Your task to perform on an android device: Do I have any events today? Image 0: 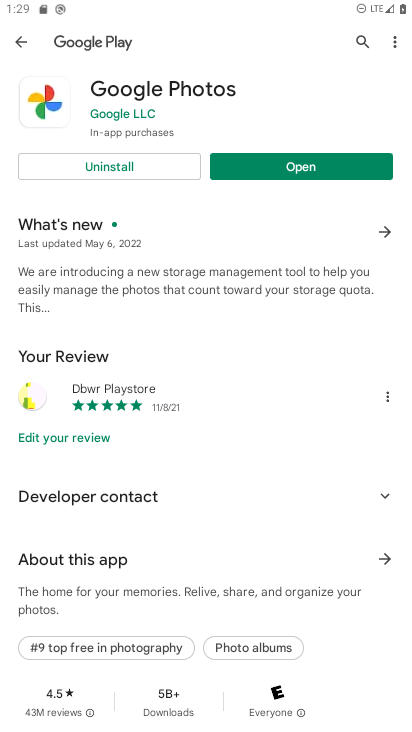
Step 0: drag from (202, 538) to (254, 183)
Your task to perform on an android device: Do I have any events today? Image 1: 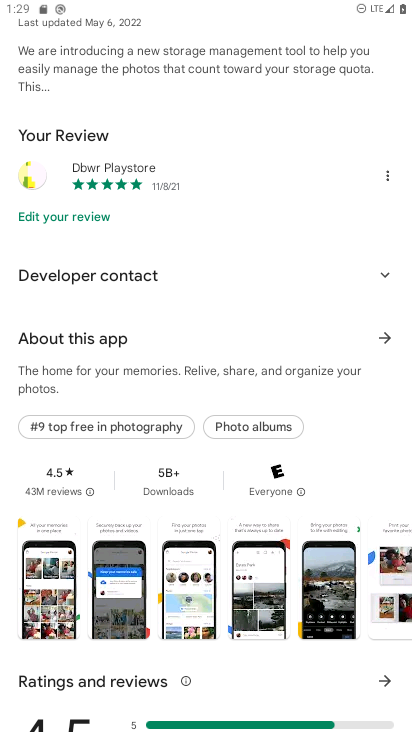
Step 1: press home button
Your task to perform on an android device: Do I have any events today? Image 2: 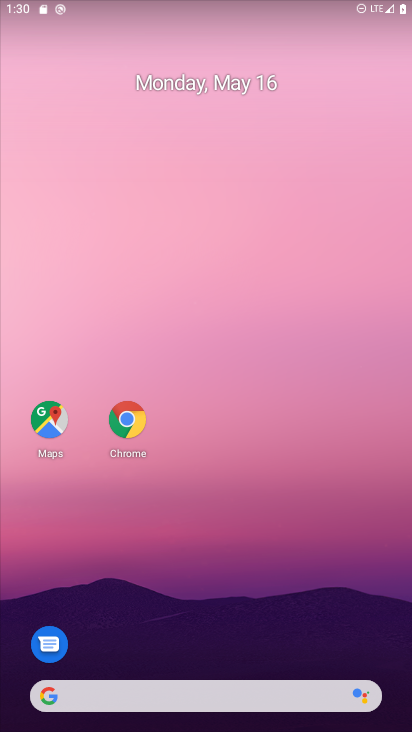
Step 2: drag from (188, 649) to (223, 150)
Your task to perform on an android device: Do I have any events today? Image 3: 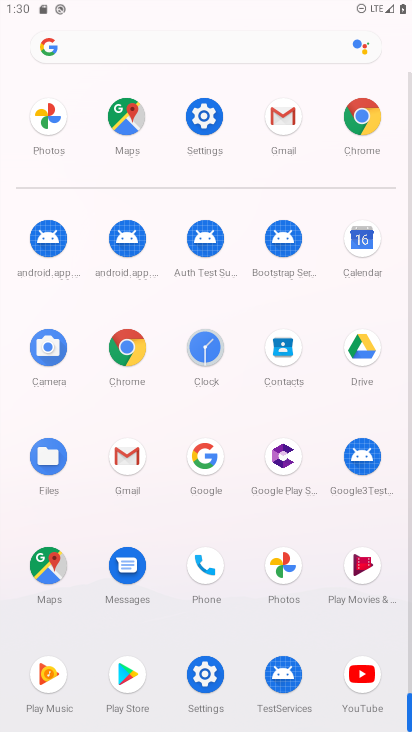
Step 3: click (355, 241)
Your task to perform on an android device: Do I have any events today? Image 4: 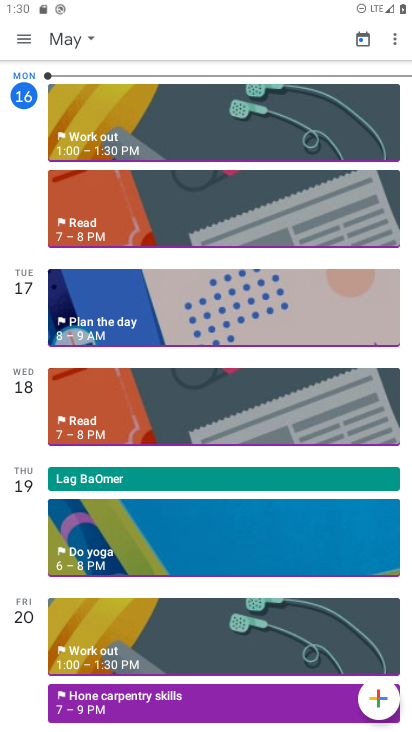
Step 4: click (72, 25)
Your task to perform on an android device: Do I have any events today? Image 5: 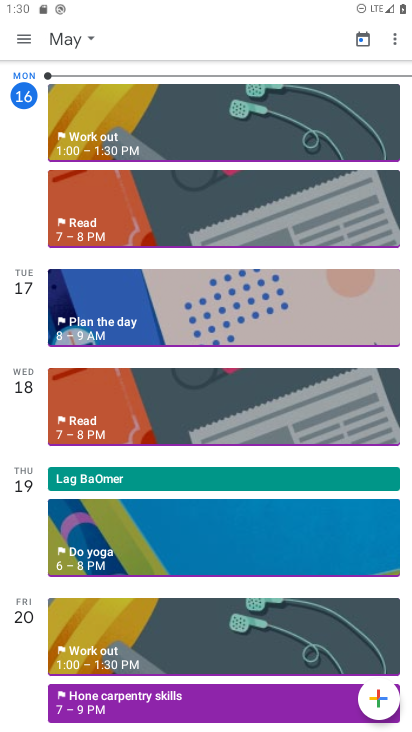
Step 5: click (84, 32)
Your task to perform on an android device: Do I have any events today? Image 6: 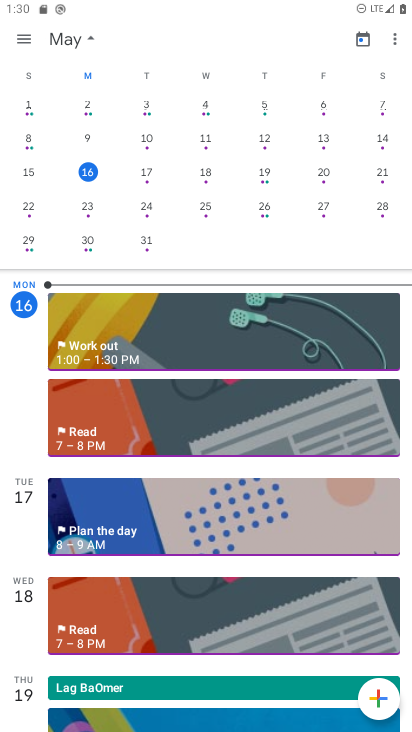
Step 6: click (82, 172)
Your task to perform on an android device: Do I have any events today? Image 7: 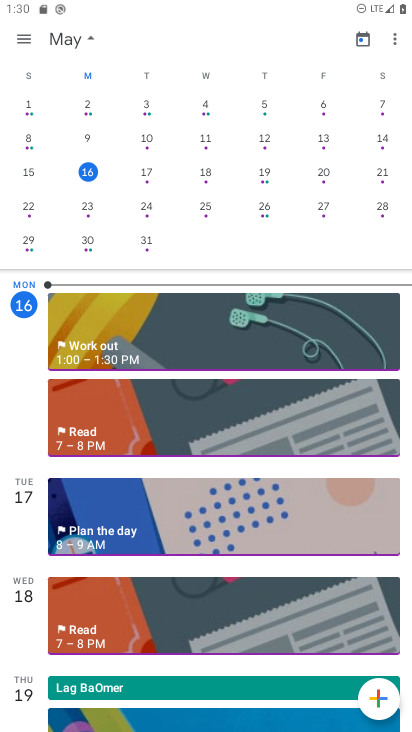
Step 7: drag from (206, 639) to (229, 572)
Your task to perform on an android device: Do I have any events today? Image 8: 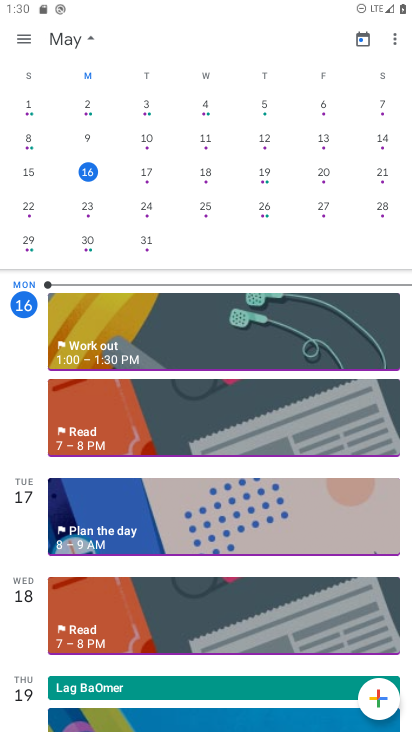
Step 8: click (125, 402)
Your task to perform on an android device: Do I have any events today? Image 9: 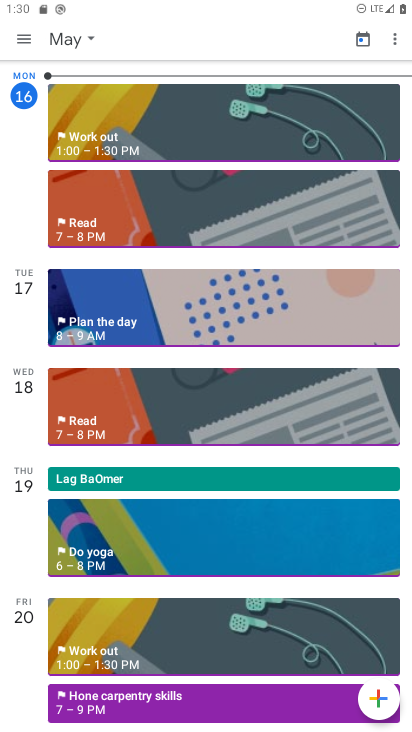
Step 9: task complete